Your task to perform on an android device: open device folders in google photos Image 0: 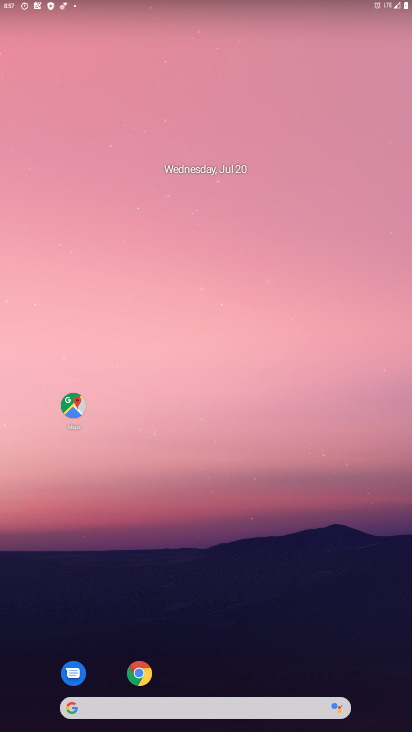
Step 0: drag from (174, 677) to (192, 76)
Your task to perform on an android device: open device folders in google photos Image 1: 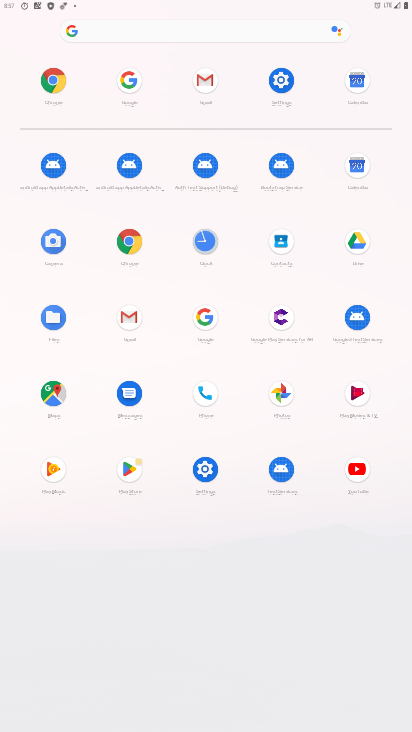
Step 1: click (280, 395)
Your task to perform on an android device: open device folders in google photos Image 2: 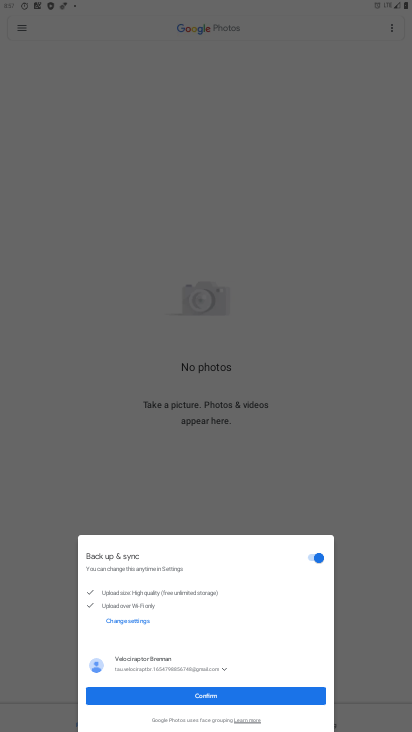
Step 2: click (199, 697)
Your task to perform on an android device: open device folders in google photos Image 3: 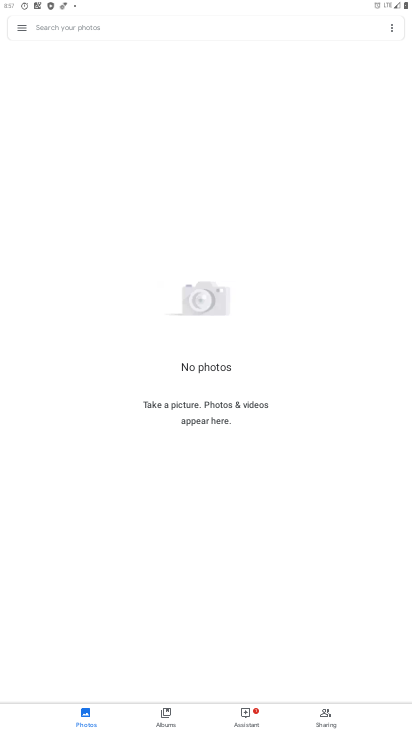
Step 3: click (21, 26)
Your task to perform on an android device: open device folders in google photos Image 4: 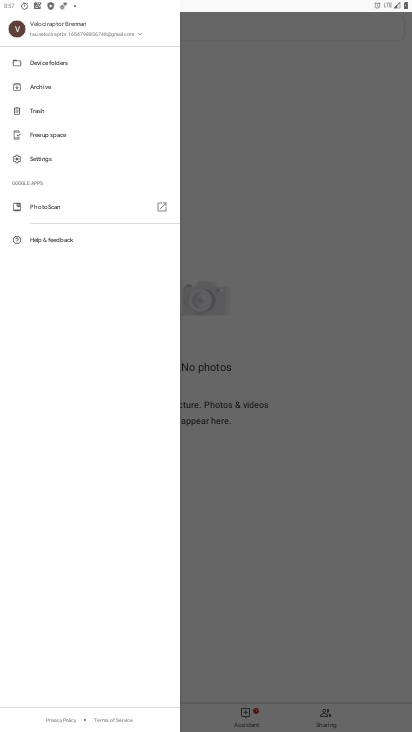
Step 4: click (49, 63)
Your task to perform on an android device: open device folders in google photos Image 5: 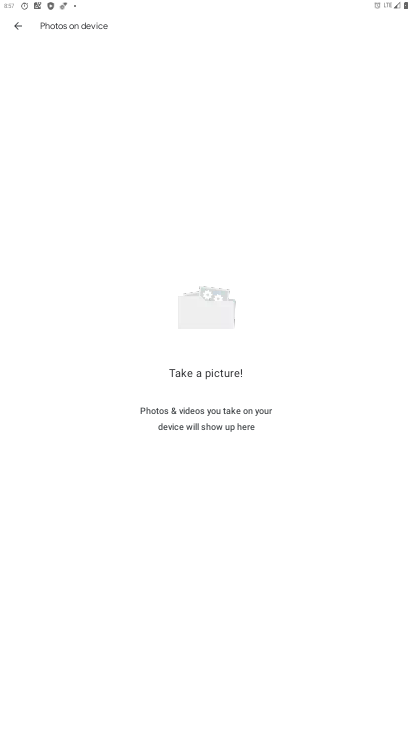
Step 5: task complete